Your task to perform on an android device: Search for Italian restaurants on Maps Image 0: 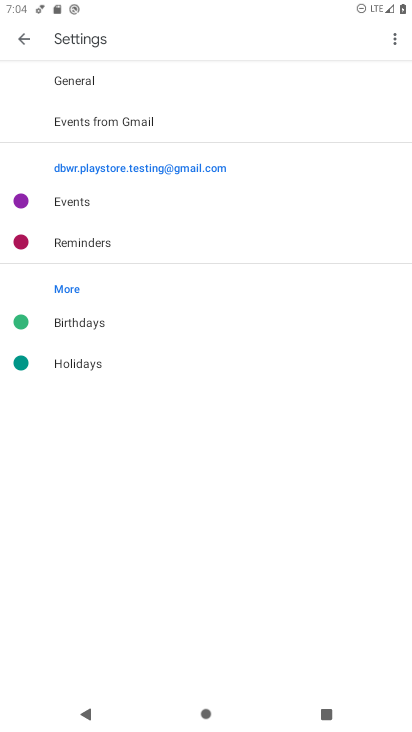
Step 0: press home button
Your task to perform on an android device: Search for Italian restaurants on Maps Image 1: 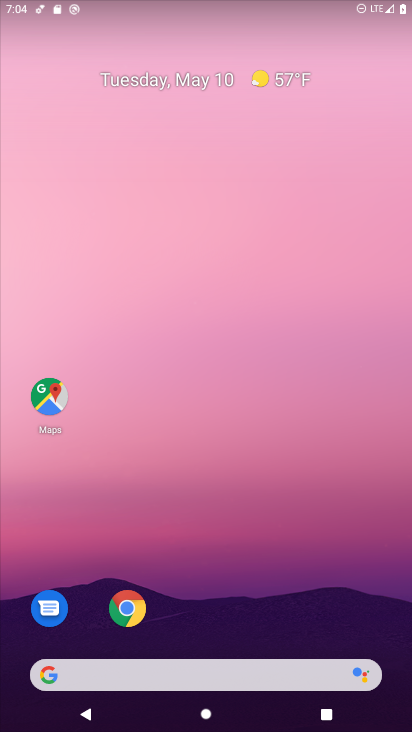
Step 1: drag from (293, 629) to (263, 7)
Your task to perform on an android device: Search for Italian restaurants on Maps Image 2: 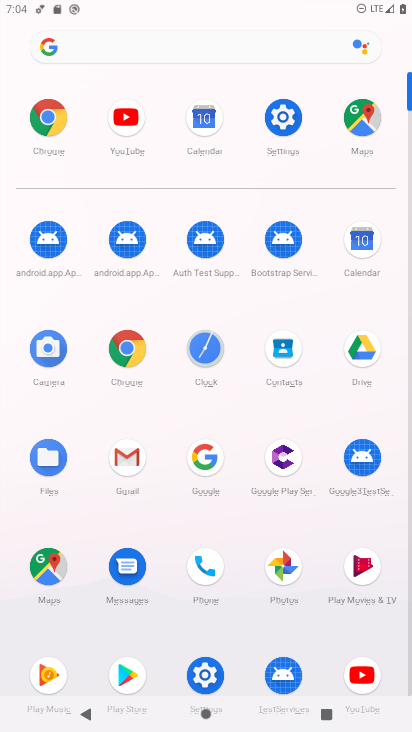
Step 2: click (357, 114)
Your task to perform on an android device: Search for Italian restaurants on Maps Image 3: 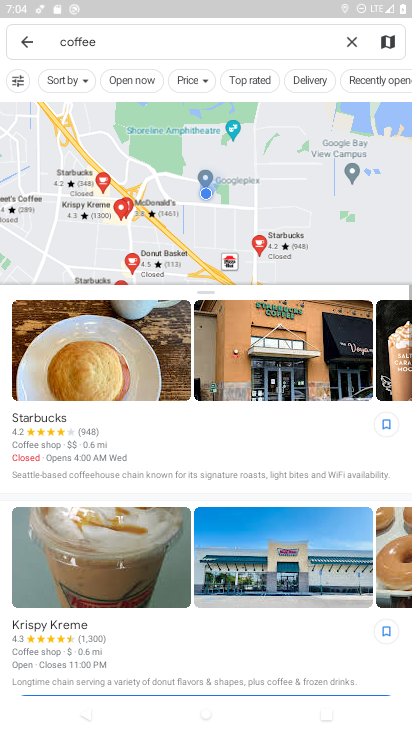
Step 3: click (345, 43)
Your task to perform on an android device: Search for Italian restaurants on Maps Image 4: 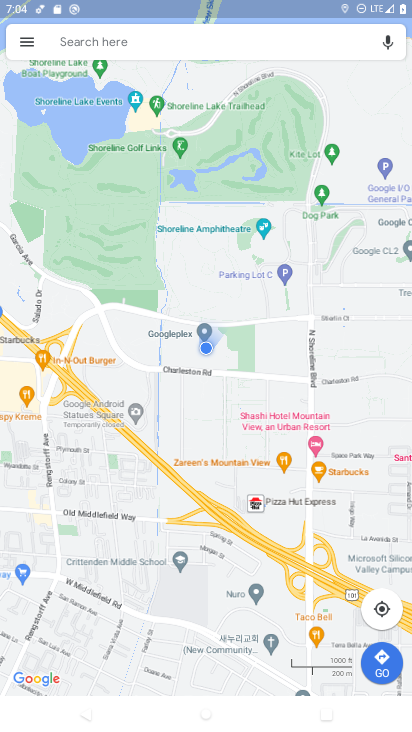
Step 4: click (132, 40)
Your task to perform on an android device: Search for Italian restaurants on Maps Image 5: 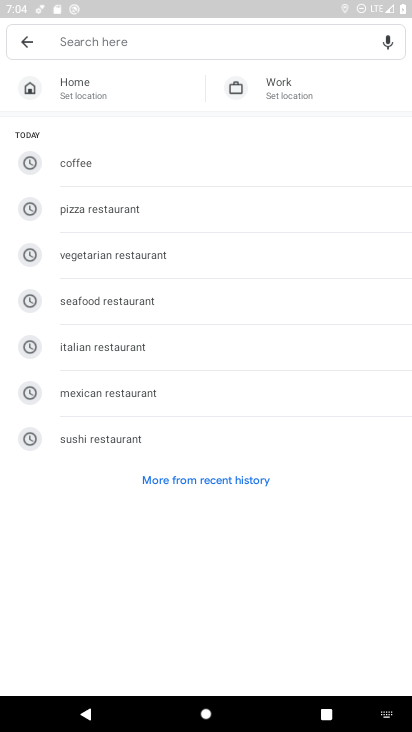
Step 5: click (125, 360)
Your task to perform on an android device: Search for Italian restaurants on Maps Image 6: 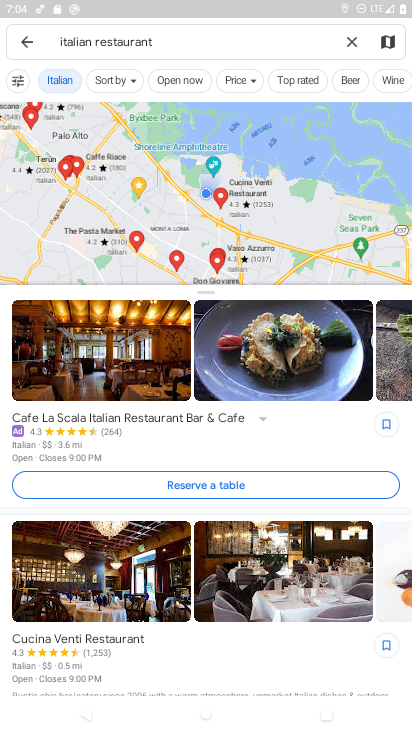
Step 6: task complete